Your task to perform on an android device: turn on wifi Image 0: 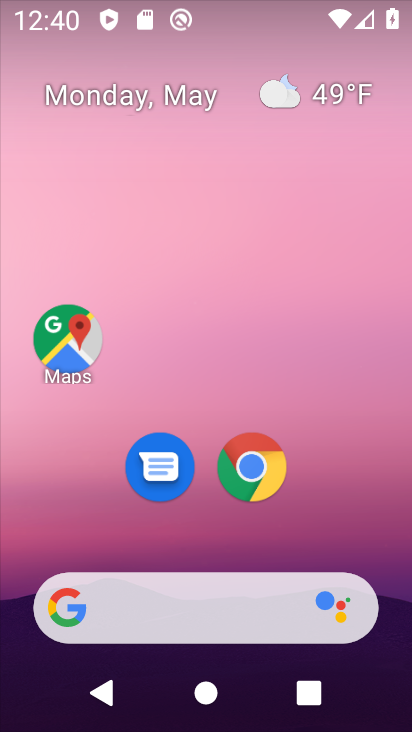
Step 0: drag from (365, 521) to (280, 89)
Your task to perform on an android device: turn on wifi Image 1: 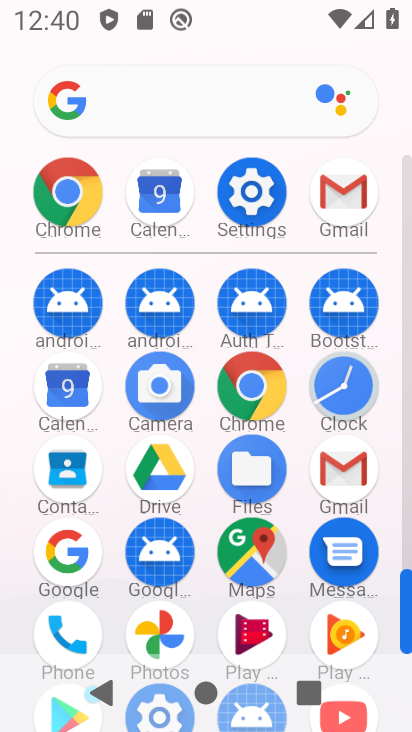
Step 1: click (280, 196)
Your task to perform on an android device: turn on wifi Image 2: 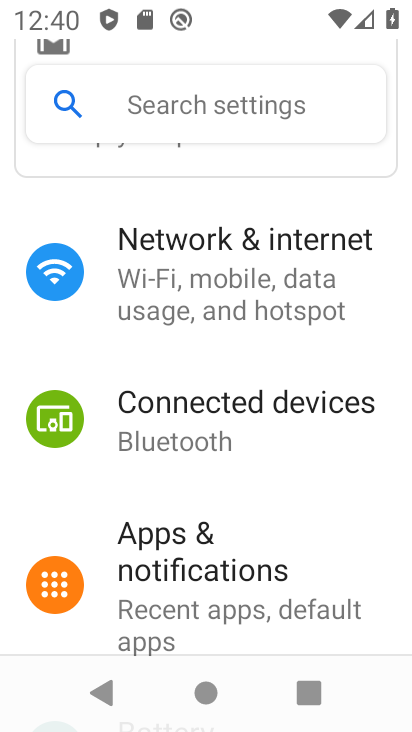
Step 2: drag from (285, 270) to (341, 453)
Your task to perform on an android device: turn on wifi Image 3: 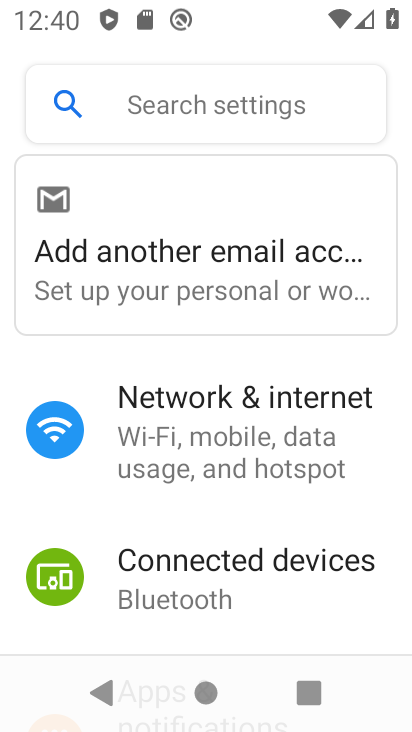
Step 3: click (327, 442)
Your task to perform on an android device: turn on wifi Image 4: 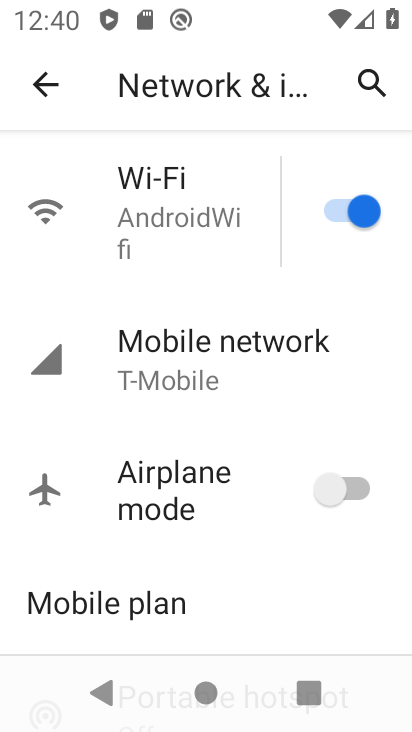
Step 4: task complete